Your task to perform on an android device: turn on javascript in the chrome app Image 0: 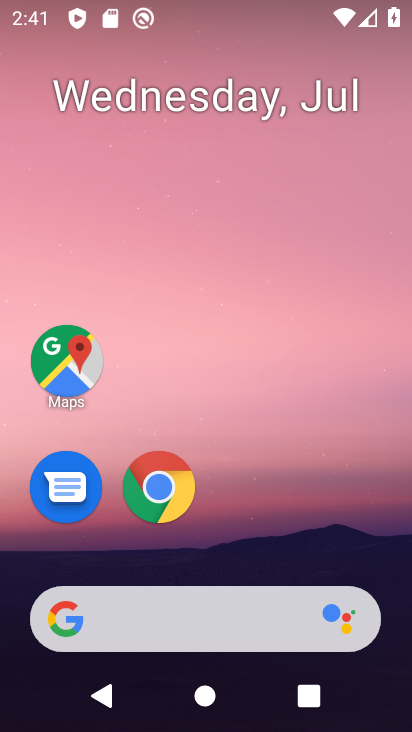
Step 0: click (148, 497)
Your task to perform on an android device: turn on javascript in the chrome app Image 1: 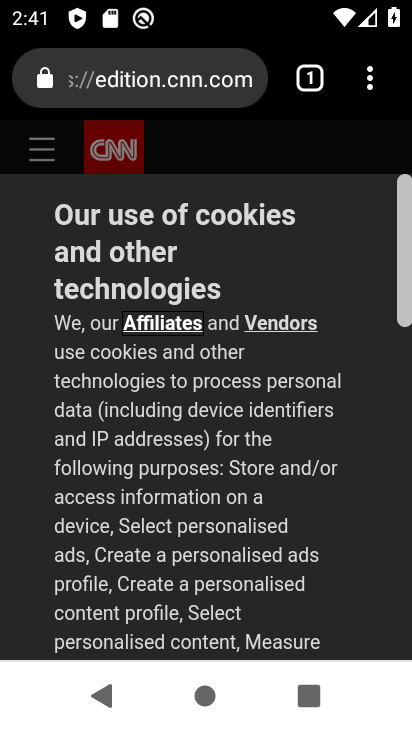
Step 1: click (368, 92)
Your task to perform on an android device: turn on javascript in the chrome app Image 2: 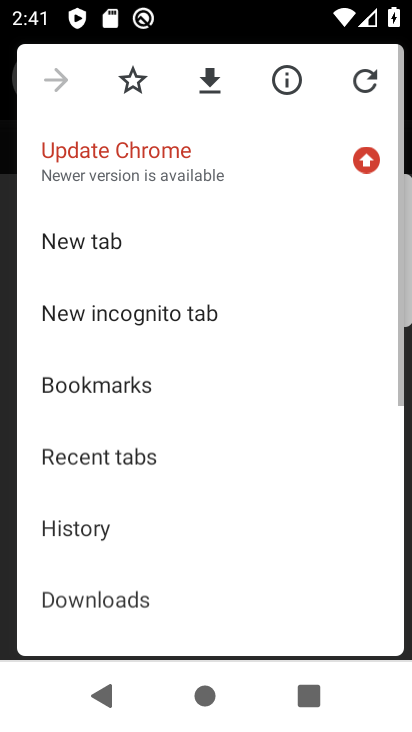
Step 2: click (374, 87)
Your task to perform on an android device: turn on javascript in the chrome app Image 3: 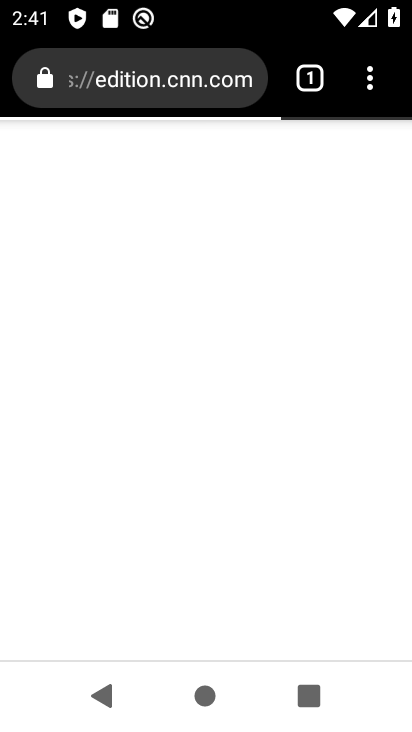
Step 3: click (374, 87)
Your task to perform on an android device: turn on javascript in the chrome app Image 4: 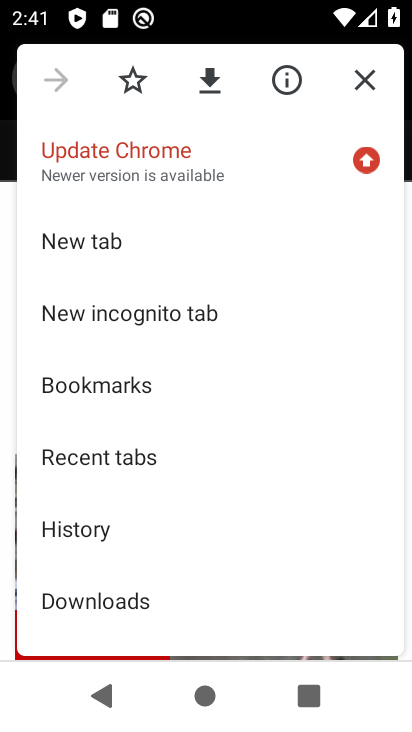
Step 4: drag from (181, 625) to (202, 201)
Your task to perform on an android device: turn on javascript in the chrome app Image 5: 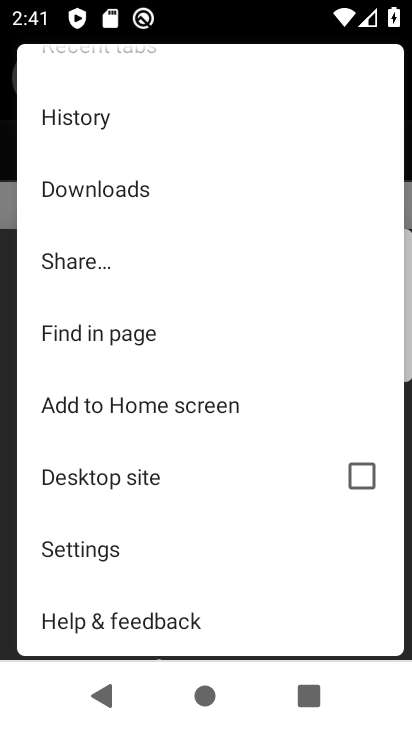
Step 5: click (156, 547)
Your task to perform on an android device: turn on javascript in the chrome app Image 6: 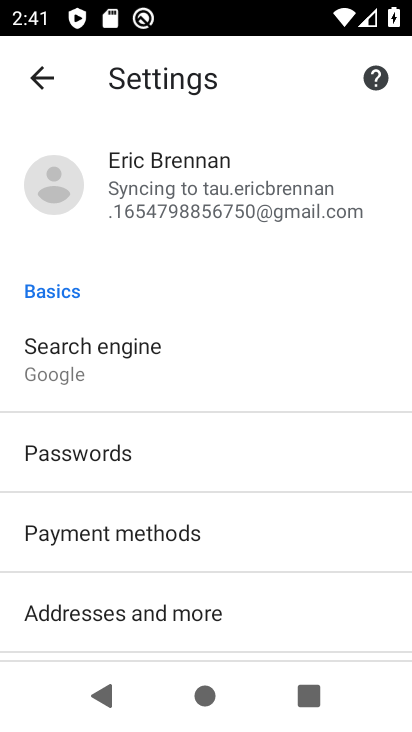
Step 6: drag from (281, 625) to (256, 235)
Your task to perform on an android device: turn on javascript in the chrome app Image 7: 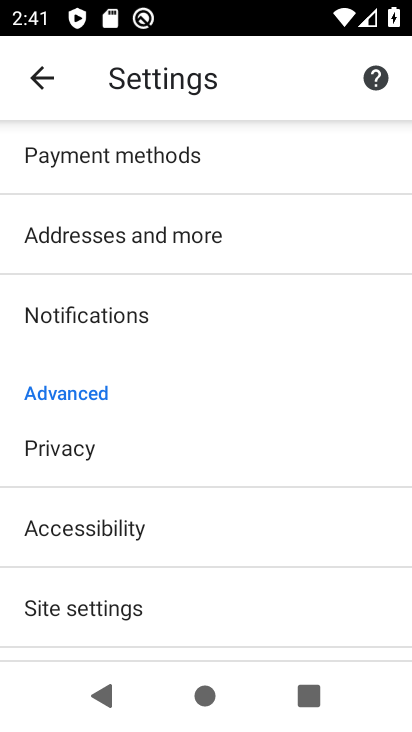
Step 7: click (260, 602)
Your task to perform on an android device: turn on javascript in the chrome app Image 8: 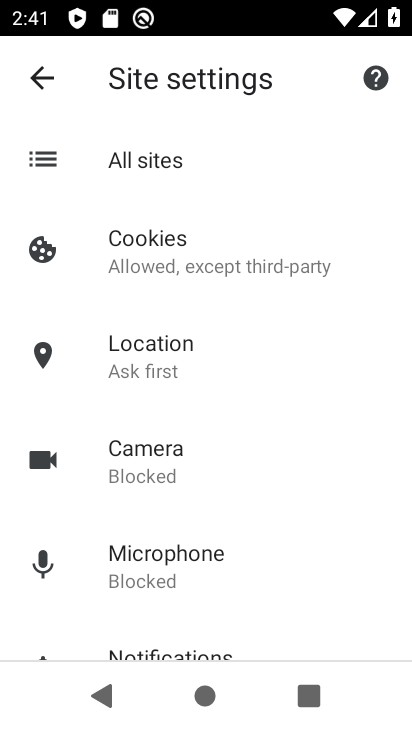
Step 8: drag from (250, 614) to (227, 247)
Your task to perform on an android device: turn on javascript in the chrome app Image 9: 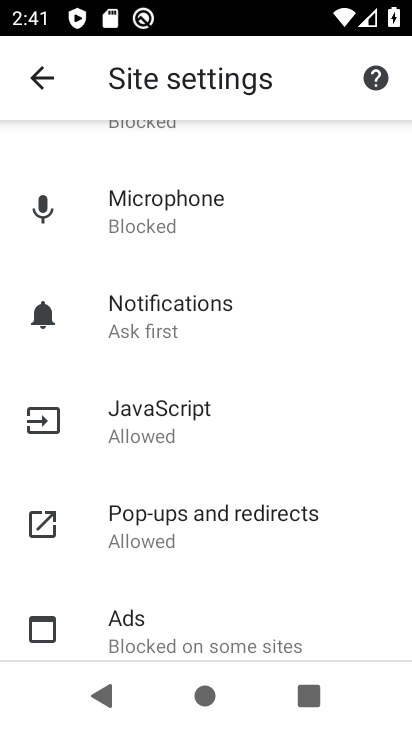
Step 9: click (217, 425)
Your task to perform on an android device: turn on javascript in the chrome app Image 10: 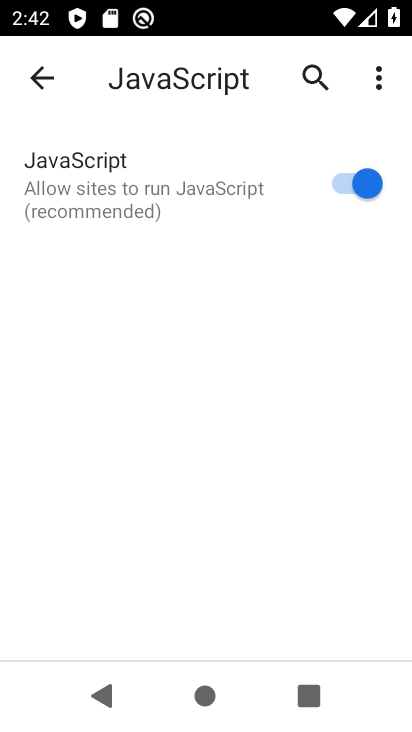
Step 10: task complete